Your task to perform on an android device: open app "Duolingo: language lessons" (install if not already installed) Image 0: 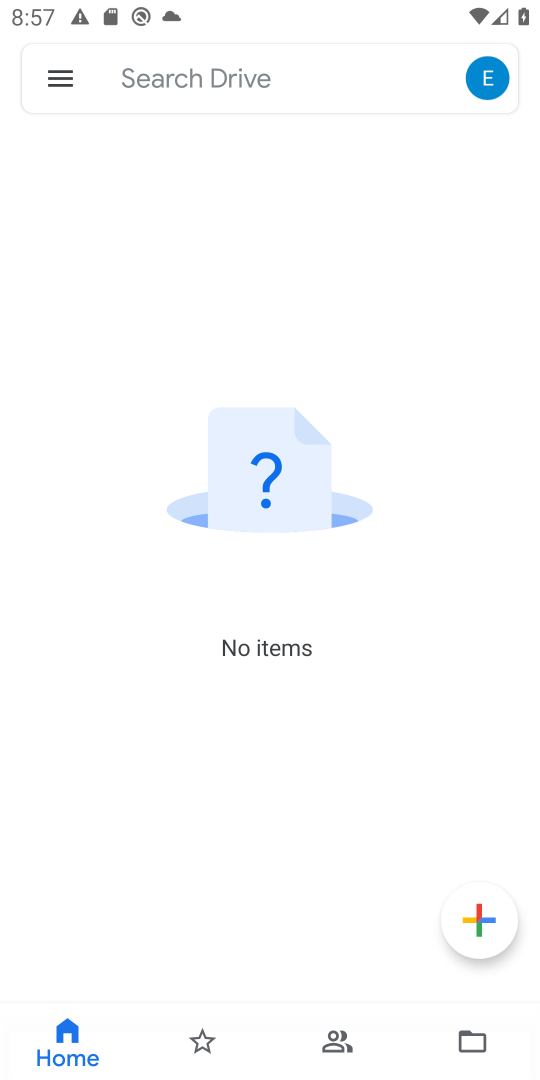
Step 0: press home button
Your task to perform on an android device: open app "Duolingo: language lessons" (install if not already installed) Image 1: 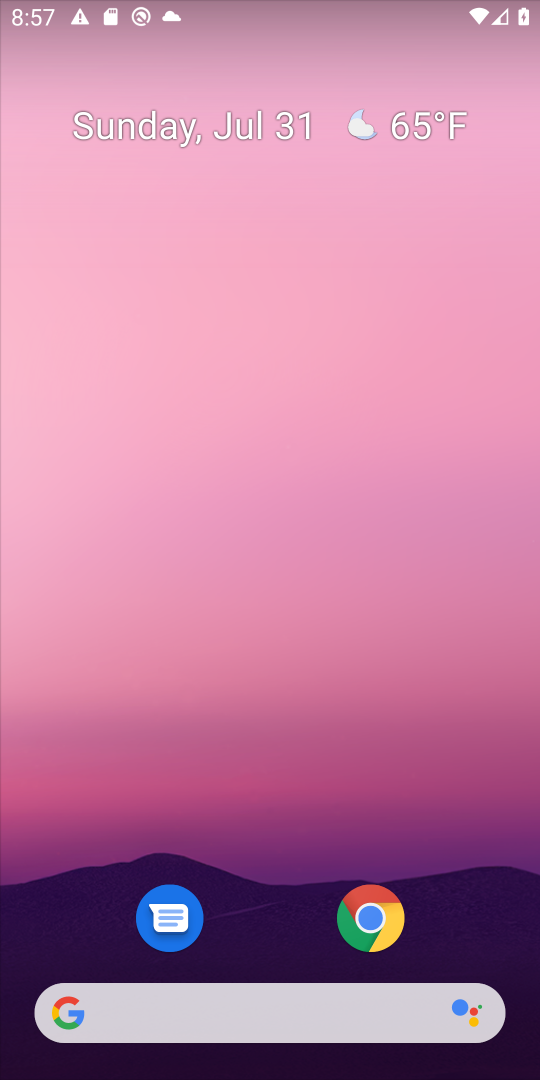
Step 1: drag from (304, 982) to (329, 0)
Your task to perform on an android device: open app "Duolingo: language lessons" (install if not already installed) Image 2: 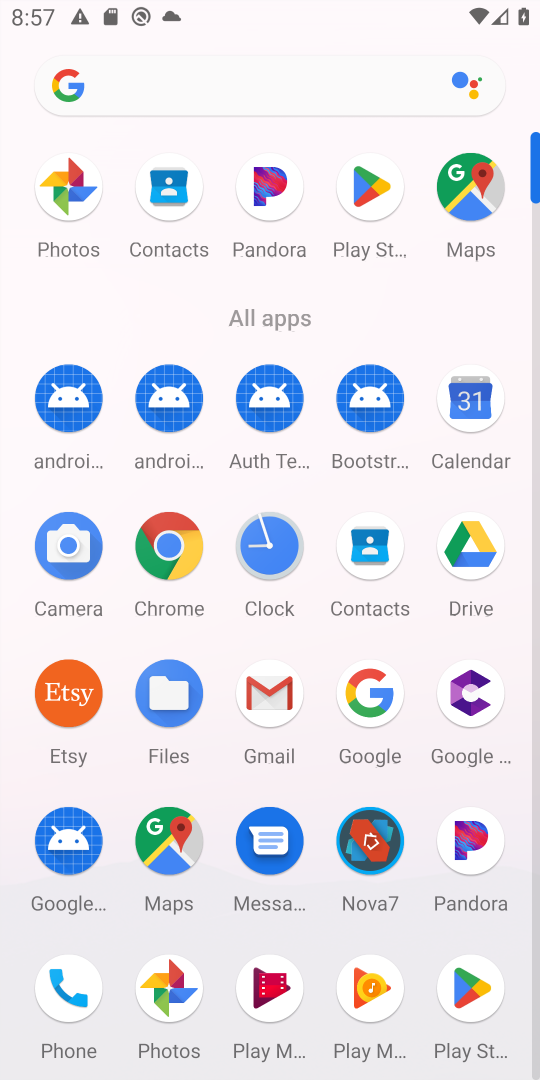
Step 2: click (381, 194)
Your task to perform on an android device: open app "Duolingo: language lessons" (install if not already installed) Image 3: 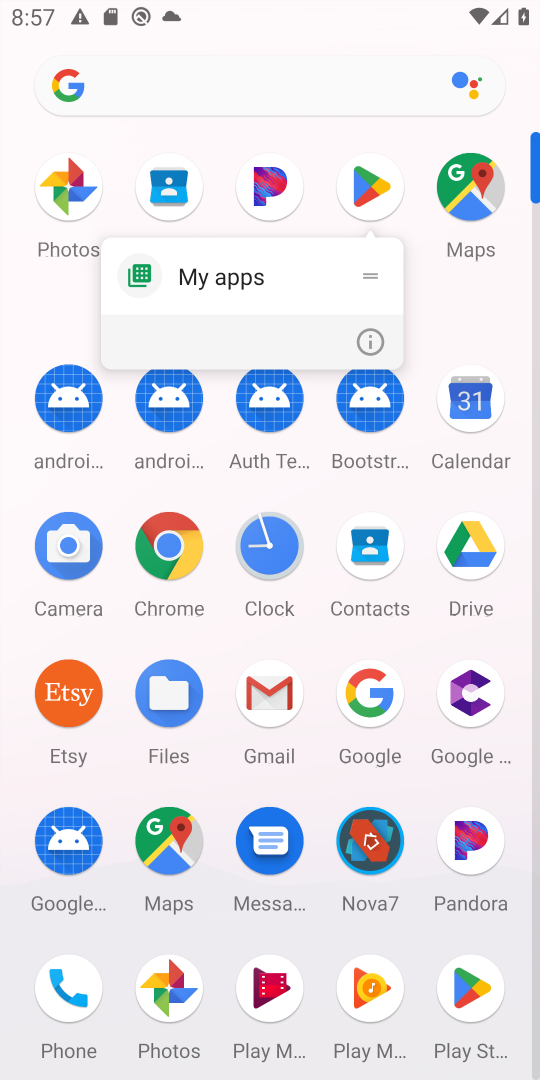
Step 3: click (381, 194)
Your task to perform on an android device: open app "Duolingo: language lessons" (install if not already installed) Image 4: 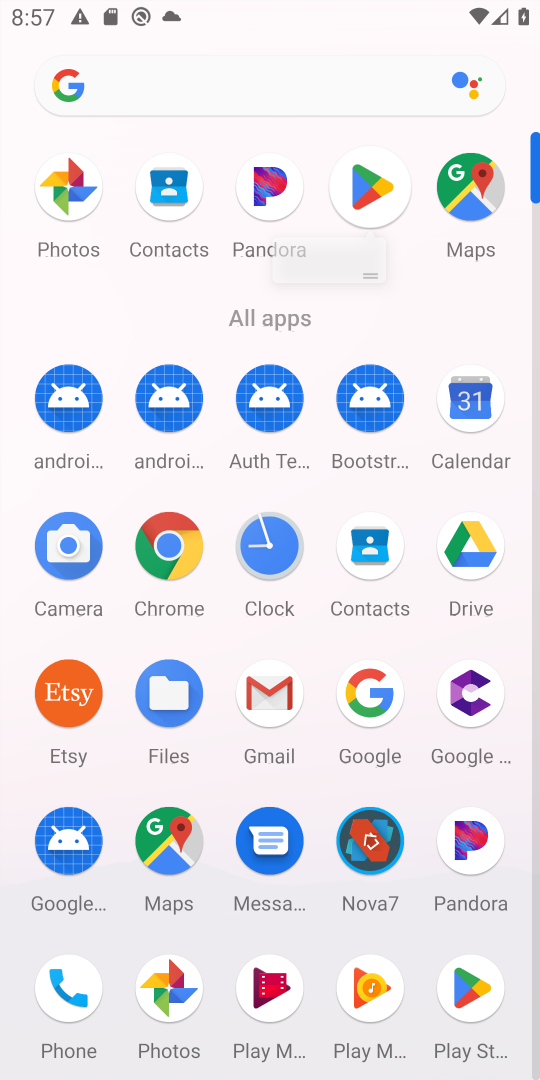
Step 4: click (381, 194)
Your task to perform on an android device: open app "Duolingo: language lessons" (install if not already installed) Image 5: 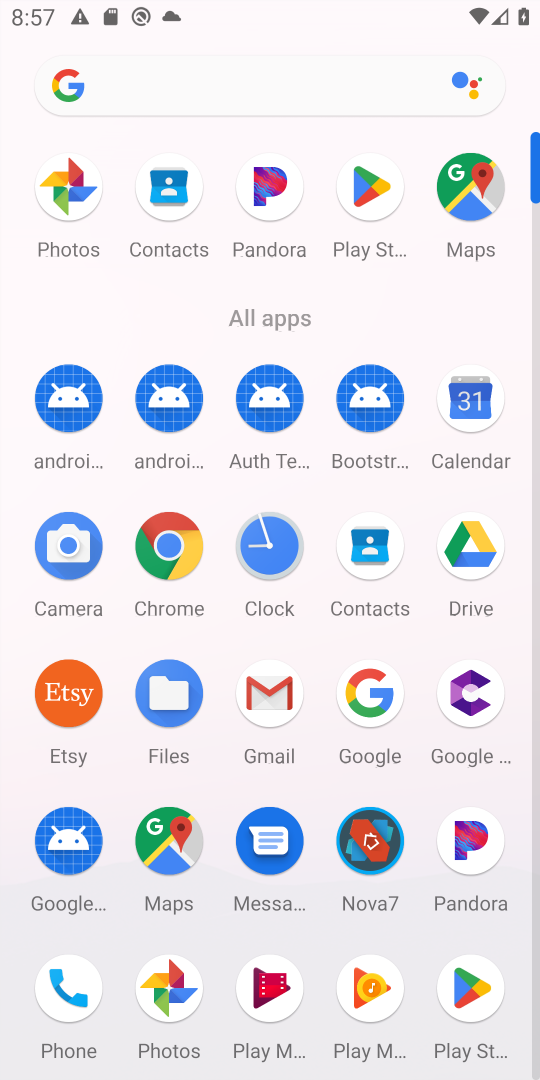
Step 5: click (381, 194)
Your task to perform on an android device: open app "Duolingo: language lessons" (install if not already installed) Image 6: 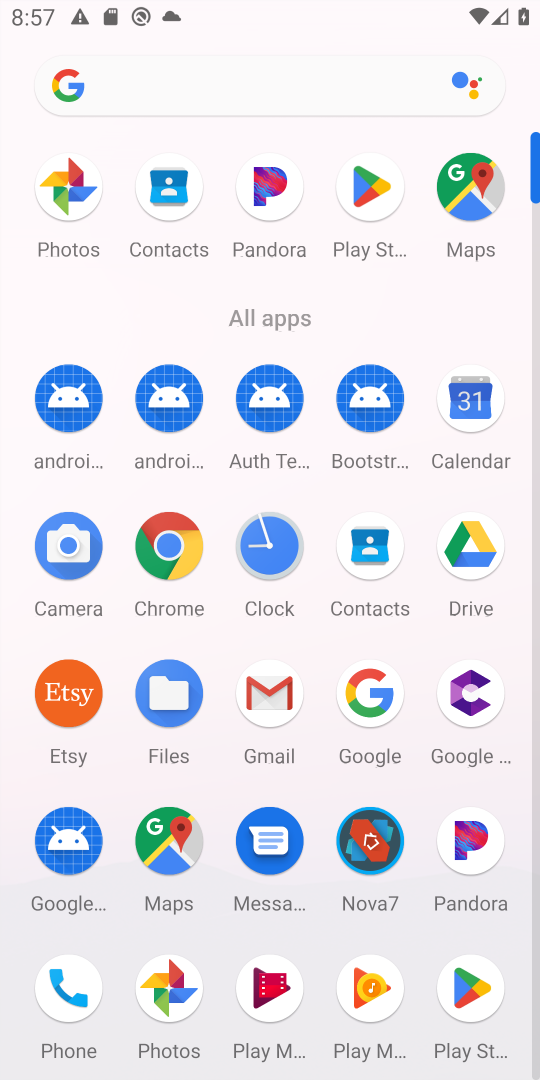
Step 6: click (381, 194)
Your task to perform on an android device: open app "Duolingo: language lessons" (install if not already installed) Image 7: 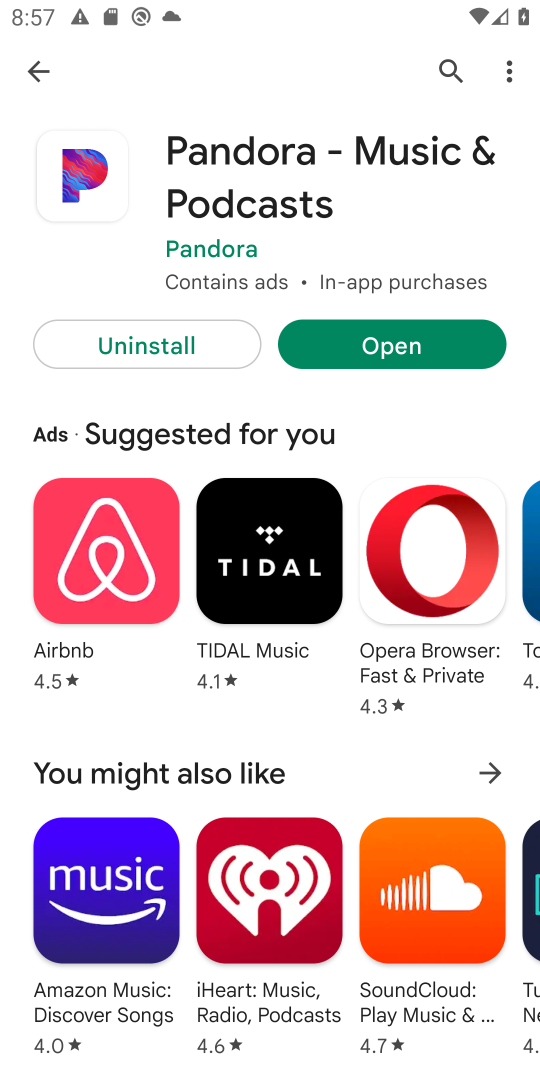
Step 7: click (438, 72)
Your task to perform on an android device: open app "Duolingo: language lessons" (install if not already installed) Image 8: 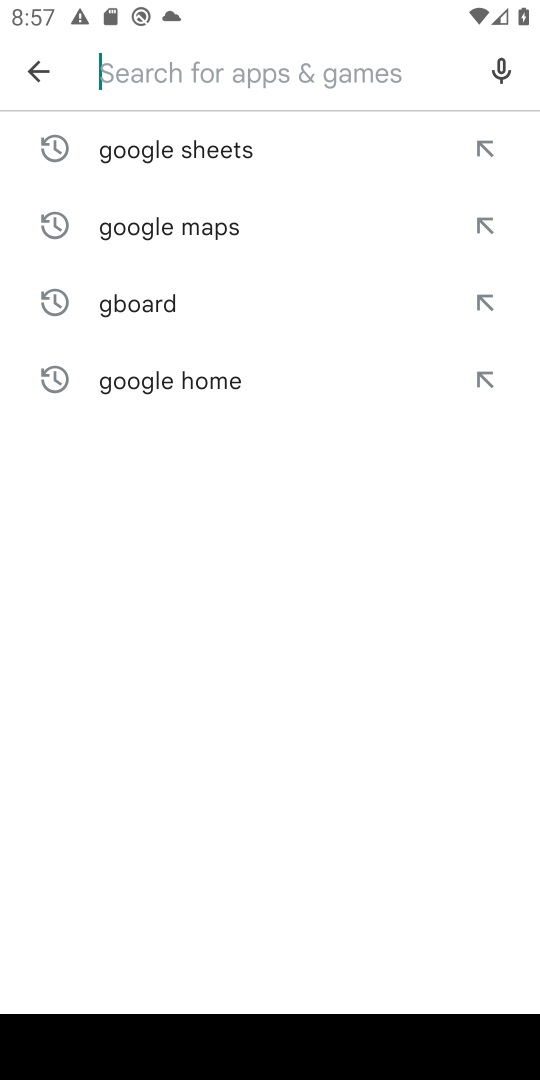
Step 8: type "Duolingo: language lessons"
Your task to perform on an android device: open app "Duolingo: language lessons" (install if not already installed) Image 9: 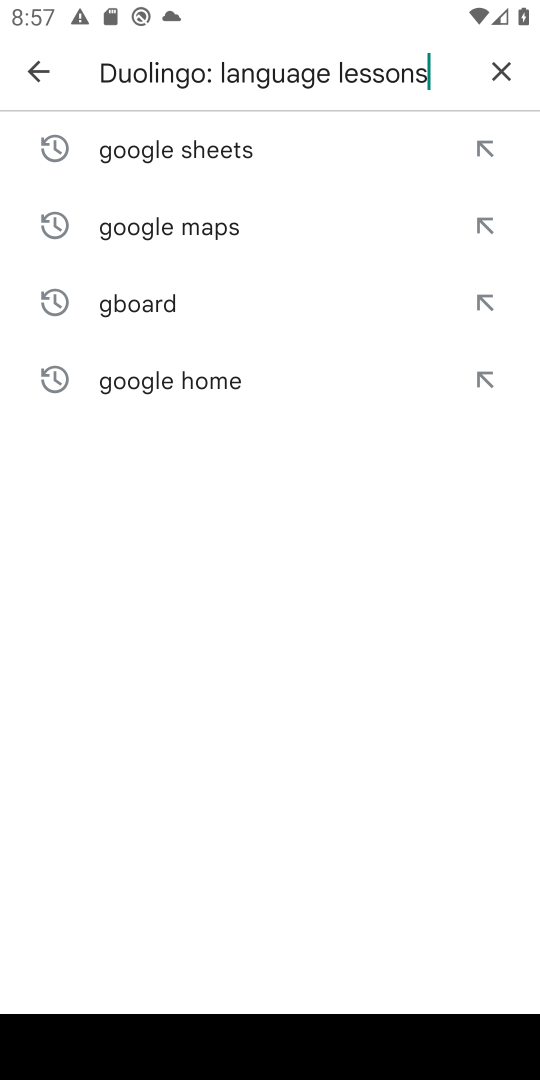
Step 9: type ""
Your task to perform on an android device: open app "Duolingo: language lessons" (install if not already installed) Image 10: 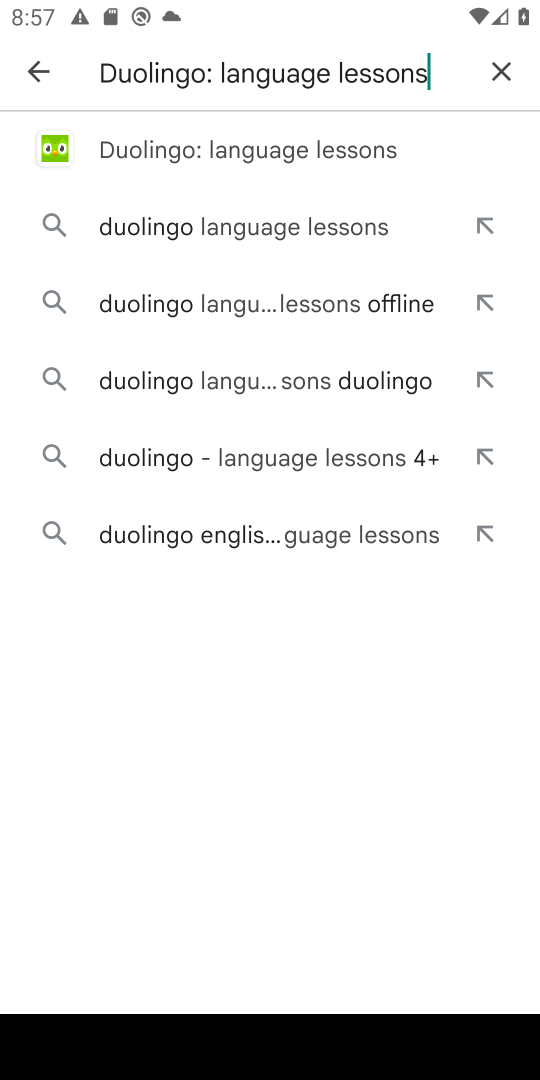
Step 10: click (282, 138)
Your task to perform on an android device: open app "Duolingo: language lessons" (install if not already installed) Image 11: 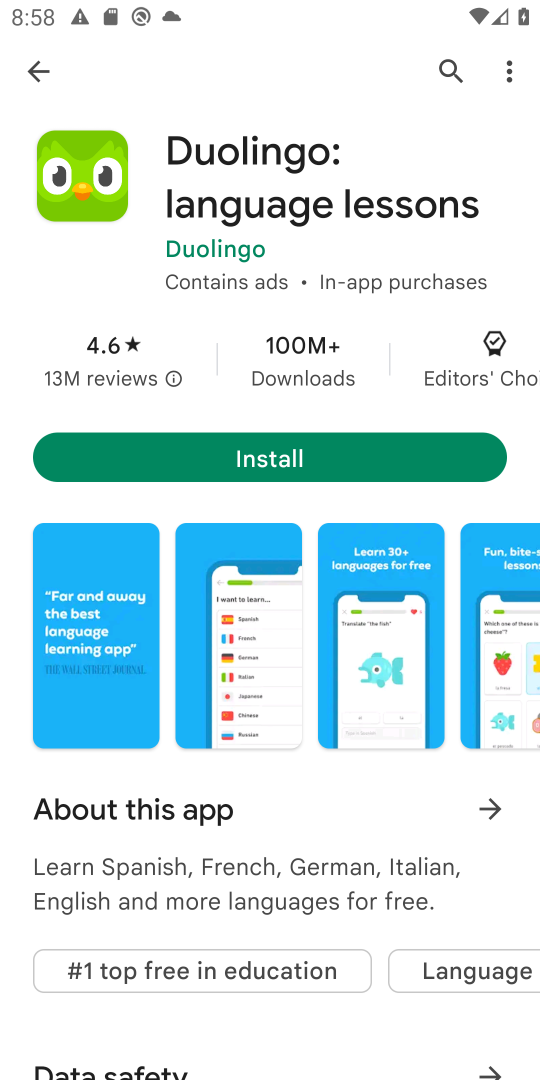
Step 11: click (135, 452)
Your task to perform on an android device: open app "Duolingo: language lessons" (install if not already installed) Image 12: 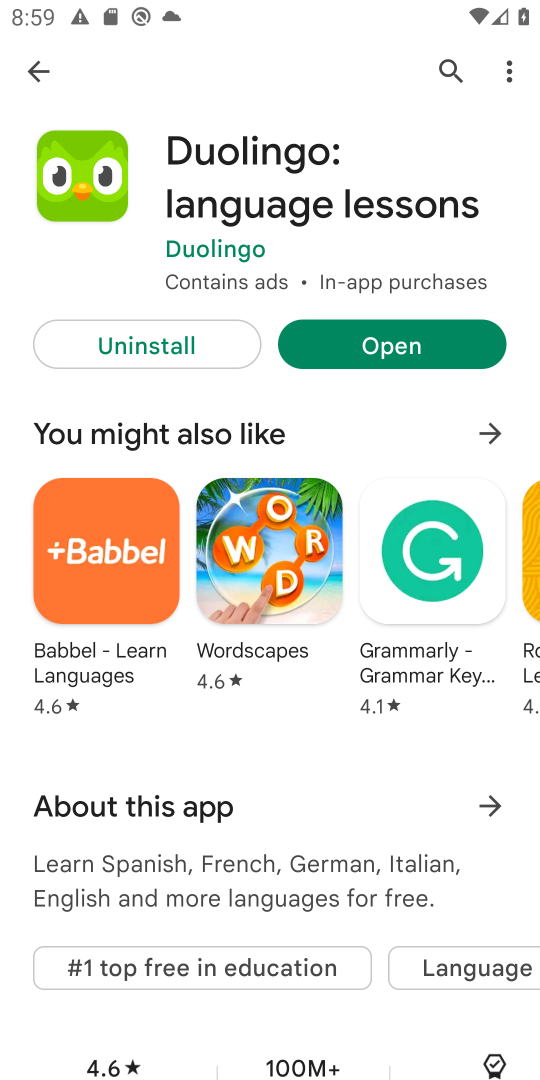
Step 12: click (415, 362)
Your task to perform on an android device: open app "Duolingo: language lessons" (install if not already installed) Image 13: 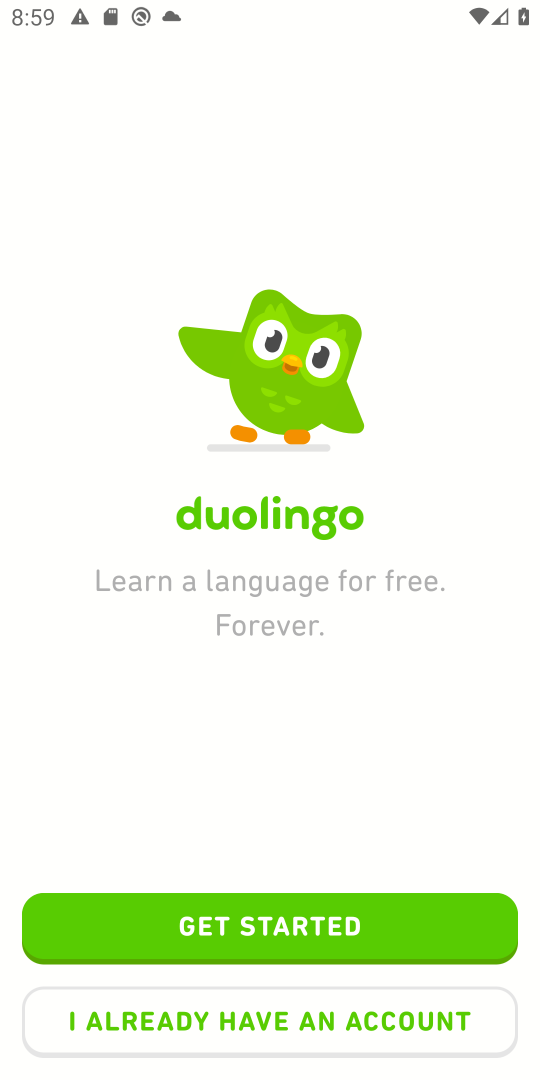
Step 13: task complete